Your task to perform on an android device: Go to internet settings Image 0: 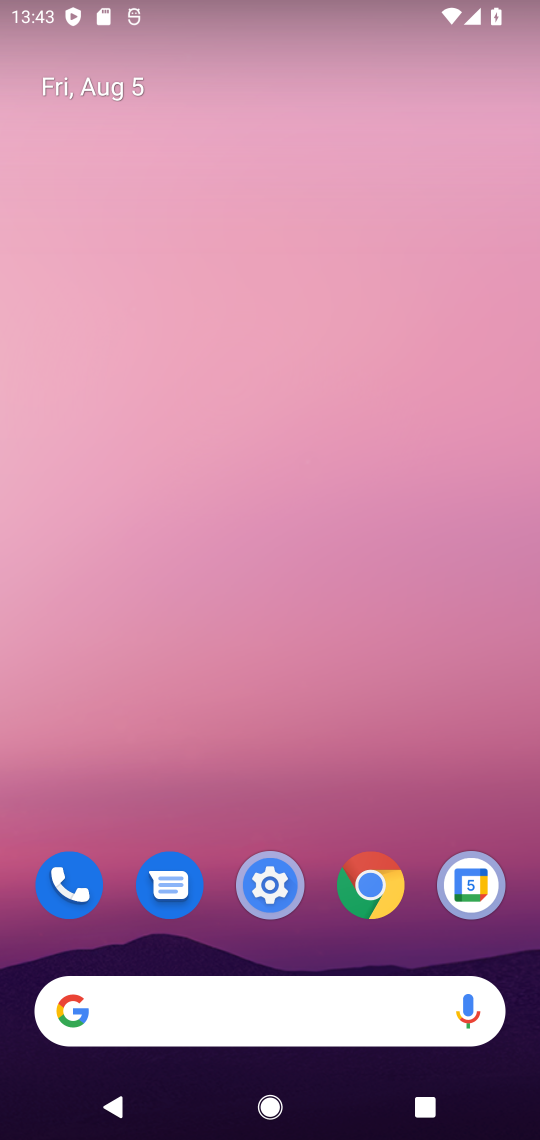
Step 0: click (279, 882)
Your task to perform on an android device: Go to internet settings Image 1: 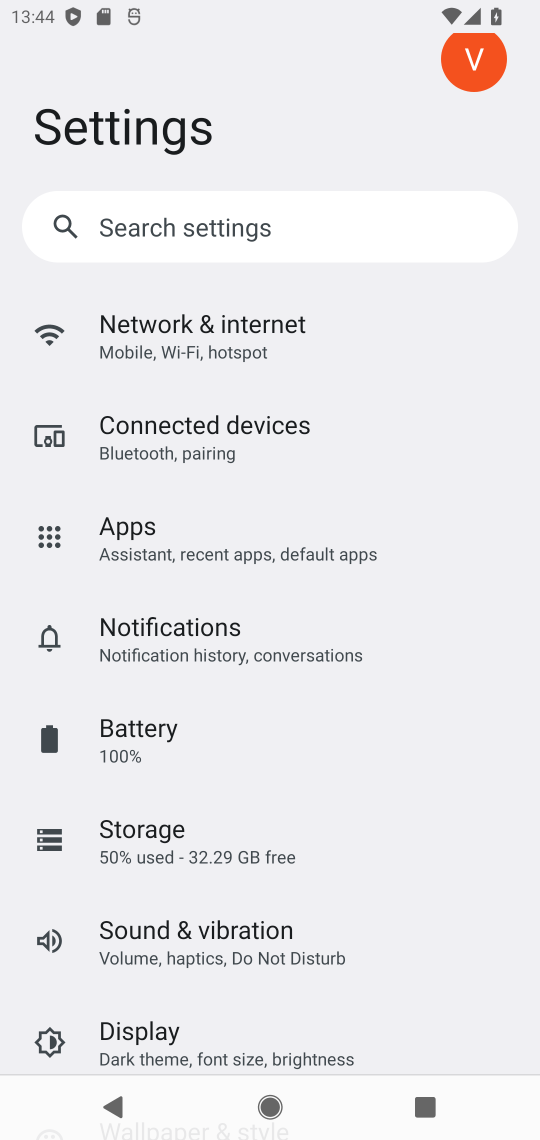
Step 1: click (190, 353)
Your task to perform on an android device: Go to internet settings Image 2: 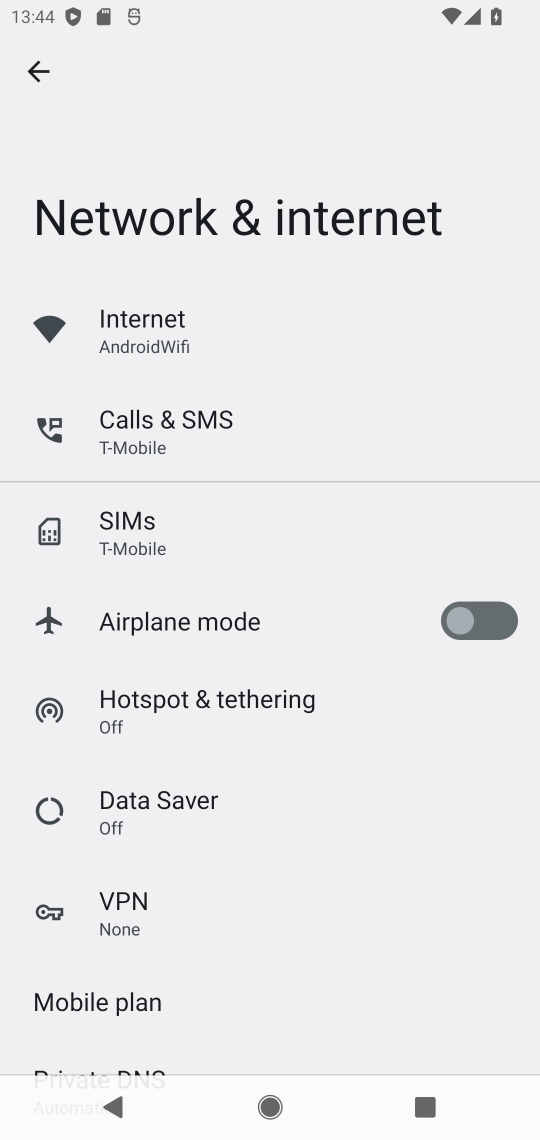
Step 2: task complete